Your task to perform on an android device: turn on priority inbox in the gmail app Image 0: 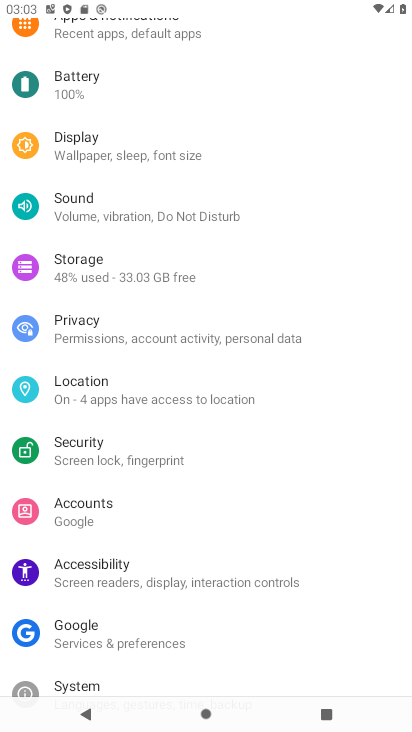
Step 0: press home button
Your task to perform on an android device: turn on priority inbox in the gmail app Image 1: 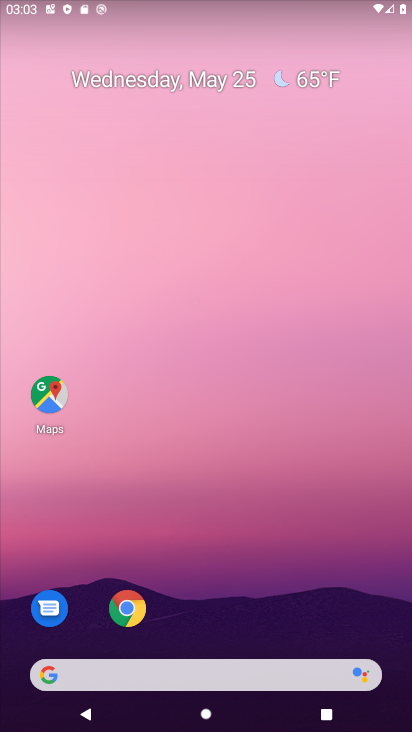
Step 1: drag from (287, 637) to (284, 14)
Your task to perform on an android device: turn on priority inbox in the gmail app Image 2: 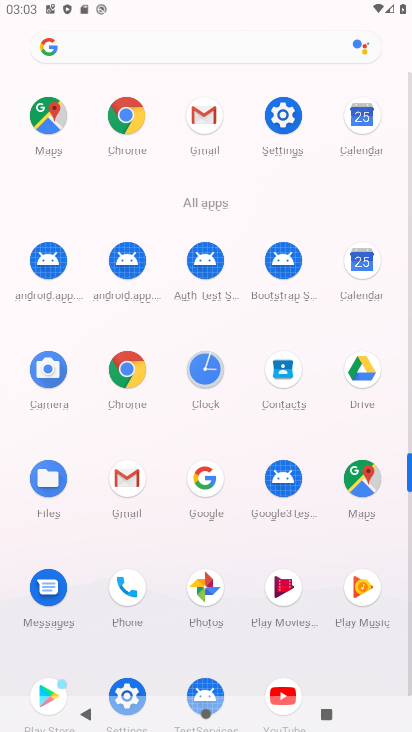
Step 2: click (207, 111)
Your task to perform on an android device: turn on priority inbox in the gmail app Image 3: 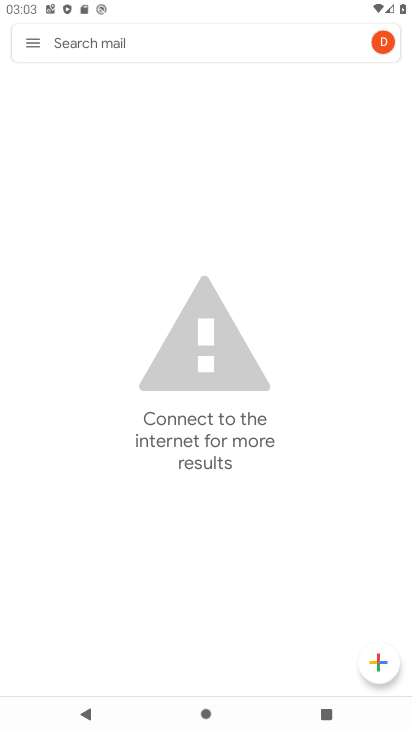
Step 3: click (18, 44)
Your task to perform on an android device: turn on priority inbox in the gmail app Image 4: 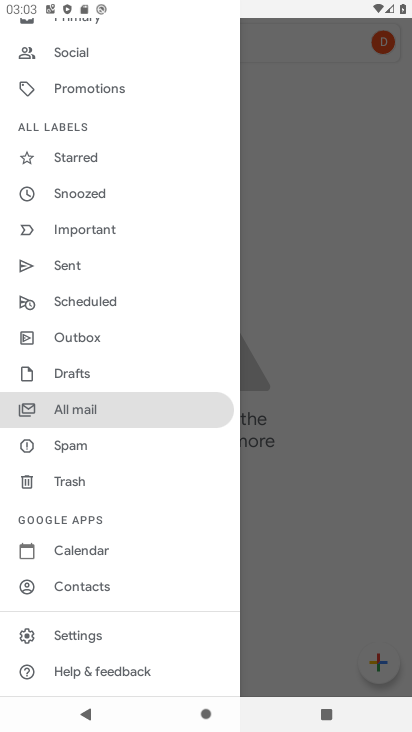
Step 4: click (83, 634)
Your task to perform on an android device: turn on priority inbox in the gmail app Image 5: 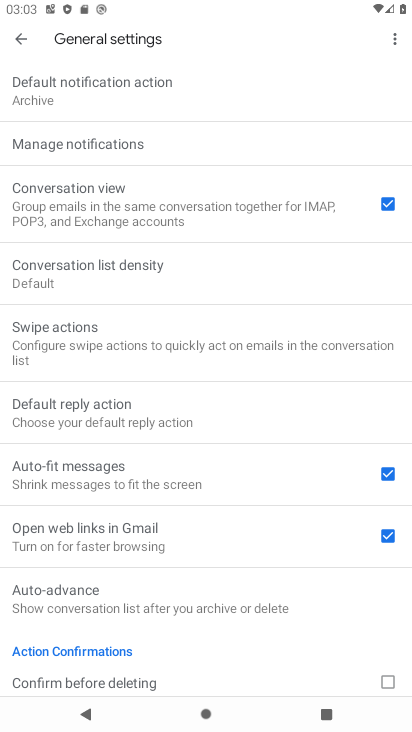
Step 5: click (17, 45)
Your task to perform on an android device: turn on priority inbox in the gmail app Image 6: 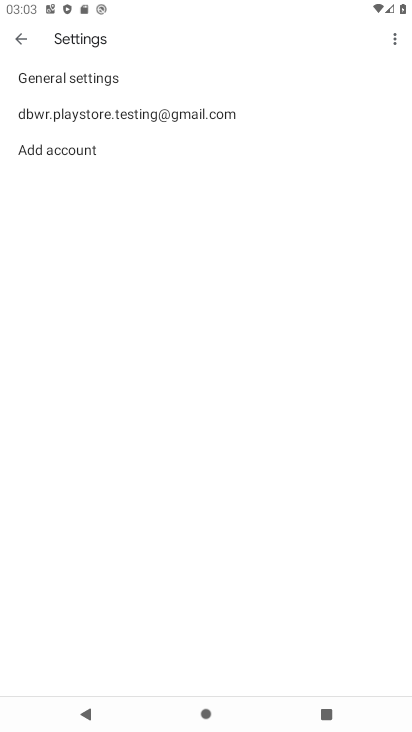
Step 6: click (50, 116)
Your task to perform on an android device: turn on priority inbox in the gmail app Image 7: 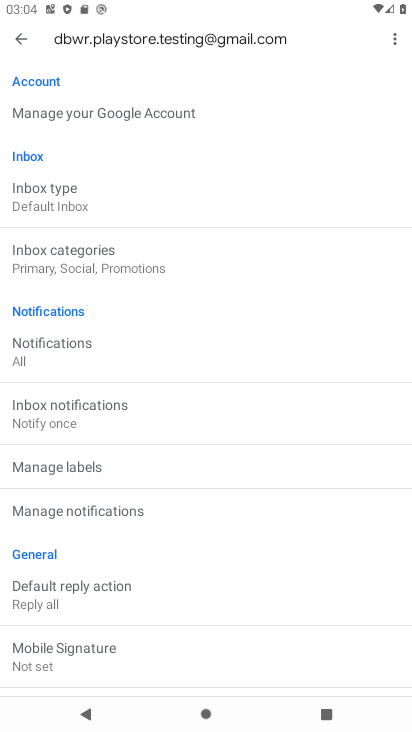
Step 7: click (32, 204)
Your task to perform on an android device: turn on priority inbox in the gmail app Image 8: 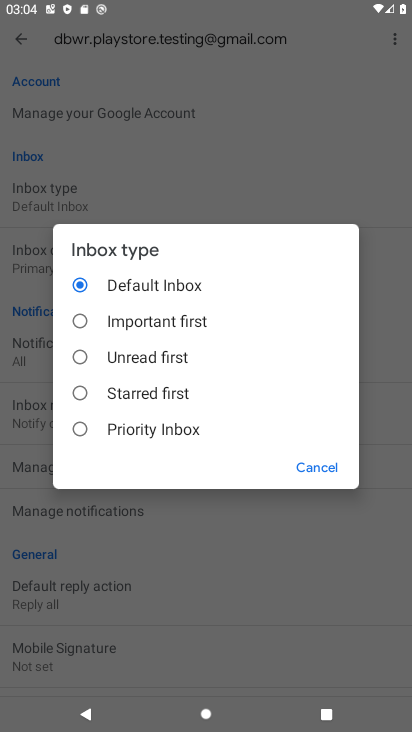
Step 8: click (80, 427)
Your task to perform on an android device: turn on priority inbox in the gmail app Image 9: 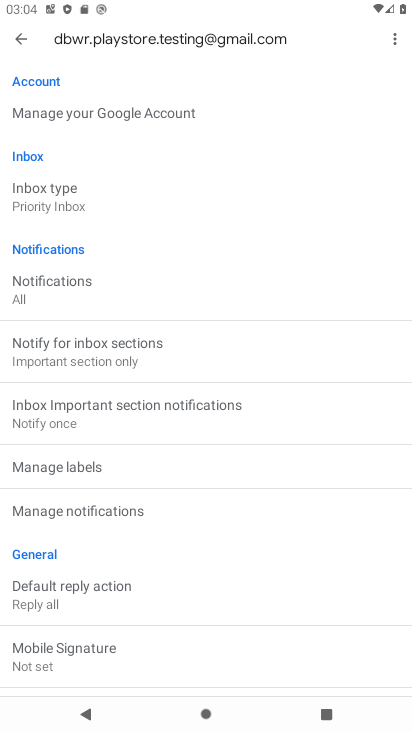
Step 9: task complete